Your task to perform on an android device: toggle translation in the chrome app Image 0: 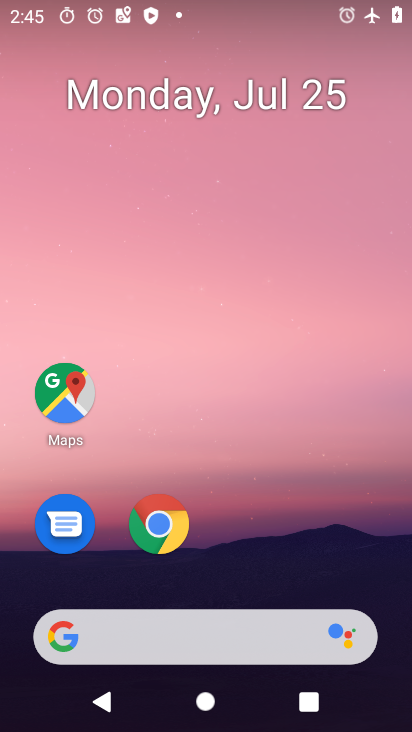
Step 0: press home button
Your task to perform on an android device: toggle translation in the chrome app Image 1: 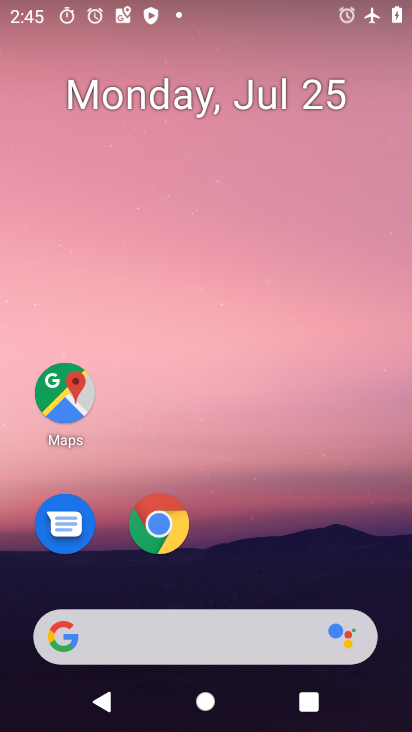
Step 1: drag from (255, 577) to (227, 49)
Your task to perform on an android device: toggle translation in the chrome app Image 2: 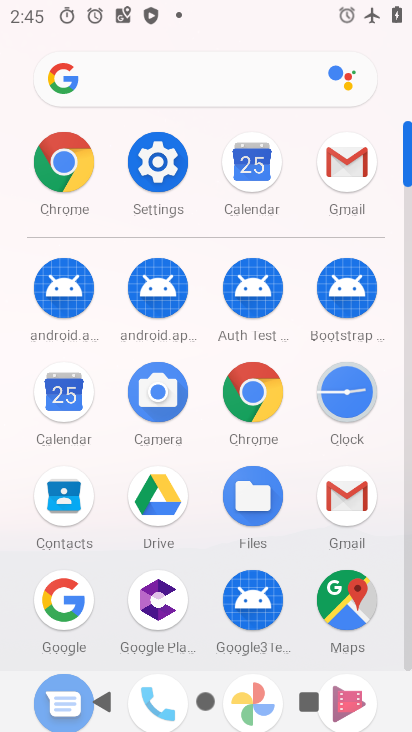
Step 2: click (60, 167)
Your task to perform on an android device: toggle translation in the chrome app Image 3: 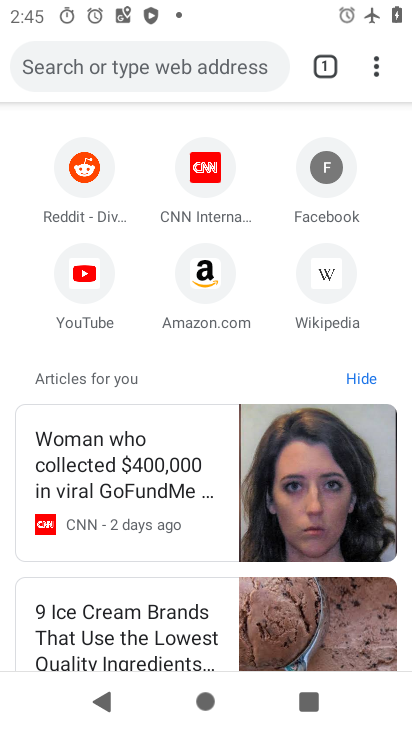
Step 3: drag from (377, 73) to (143, 553)
Your task to perform on an android device: toggle translation in the chrome app Image 4: 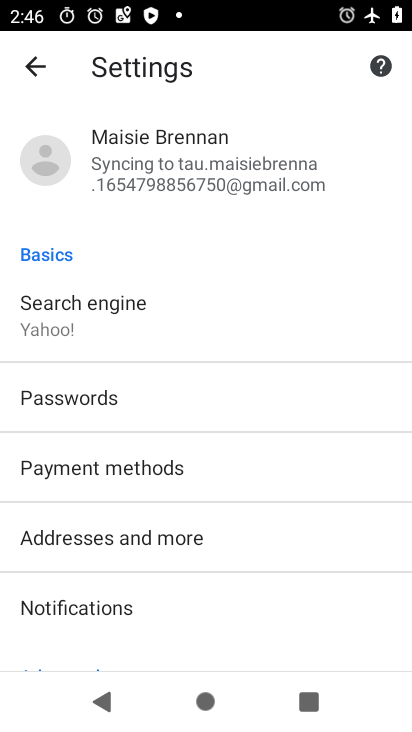
Step 4: drag from (268, 611) to (264, 70)
Your task to perform on an android device: toggle translation in the chrome app Image 5: 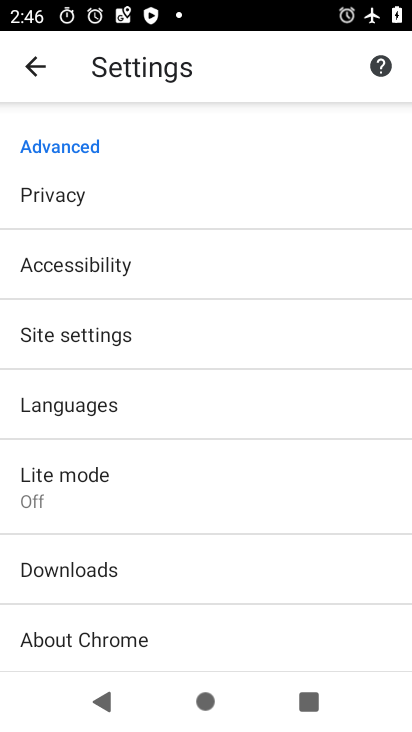
Step 5: click (68, 408)
Your task to perform on an android device: toggle translation in the chrome app Image 6: 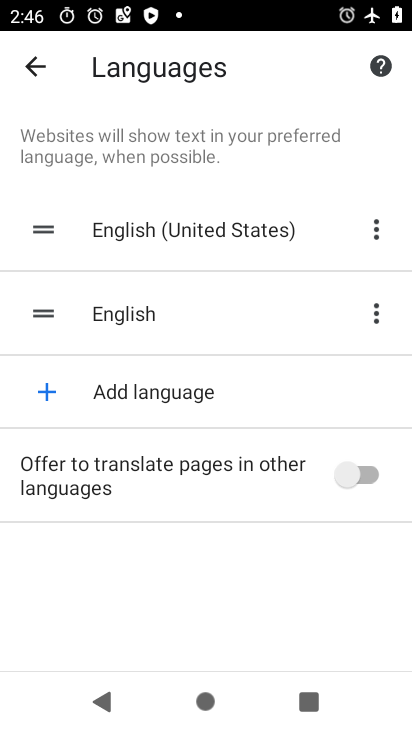
Step 6: click (355, 474)
Your task to perform on an android device: toggle translation in the chrome app Image 7: 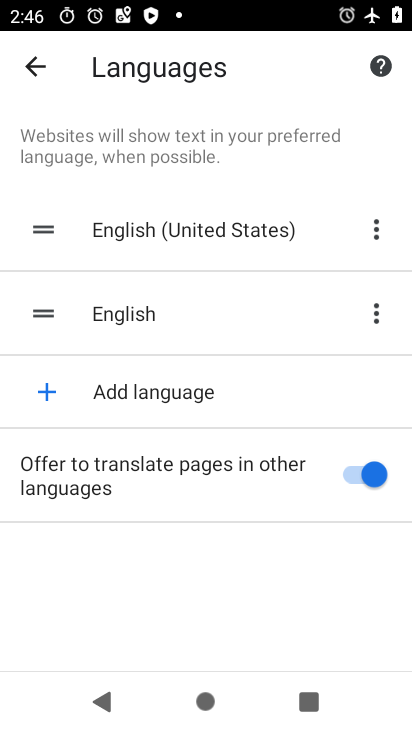
Step 7: task complete